Your task to perform on an android device: turn off smart reply in the gmail app Image 0: 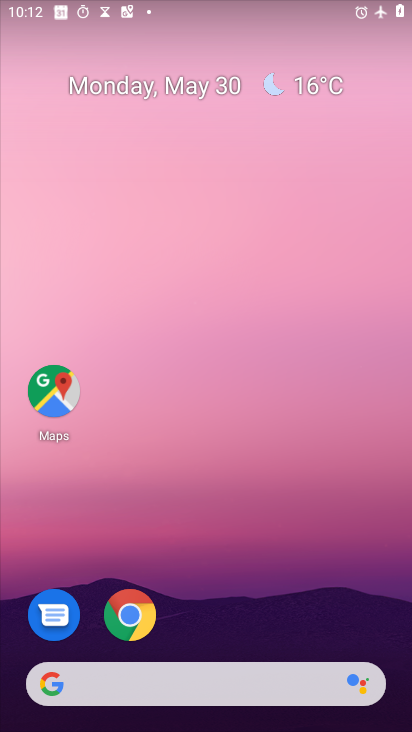
Step 0: drag from (307, 606) to (265, 33)
Your task to perform on an android device: turn off smart reply in the gmail app Image 1: 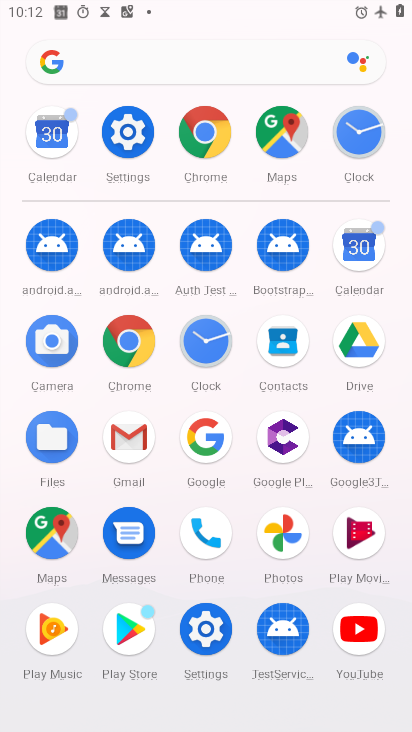
Step 1: click (127, 433)
Your task to perform on an android device: turn off smart reply in the gmail app Image 2: 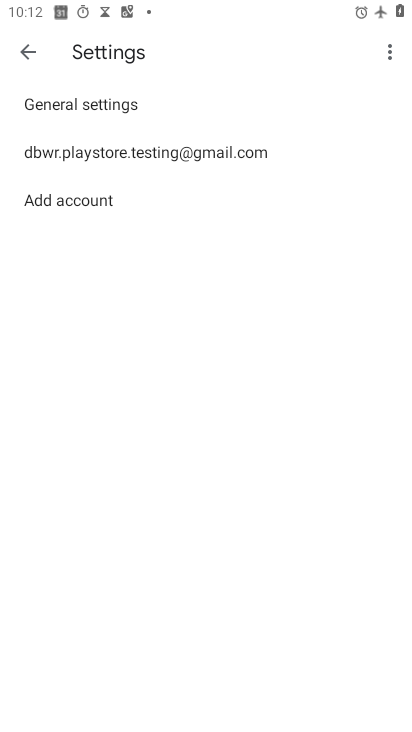
Step 2: click (31, 60)
Your task to perform on an android device: turn off smart reply in the gmail app Image 3: 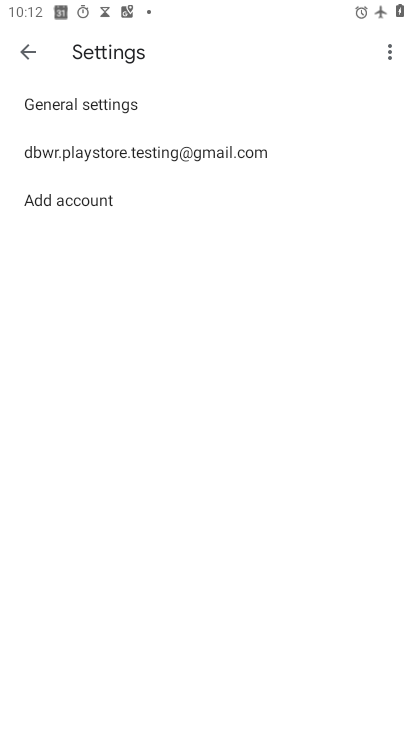
Step 3: click (31, 60)
Your task to perform on an android device: turn off smart reply in the gmail app Image 4: 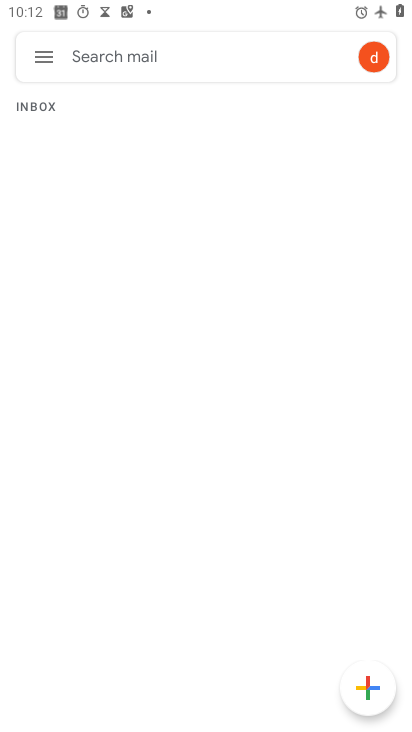
Step 4: click (41, 64)
Your task to perform on an android device: turn off smart reply in the gmail app Image 5: 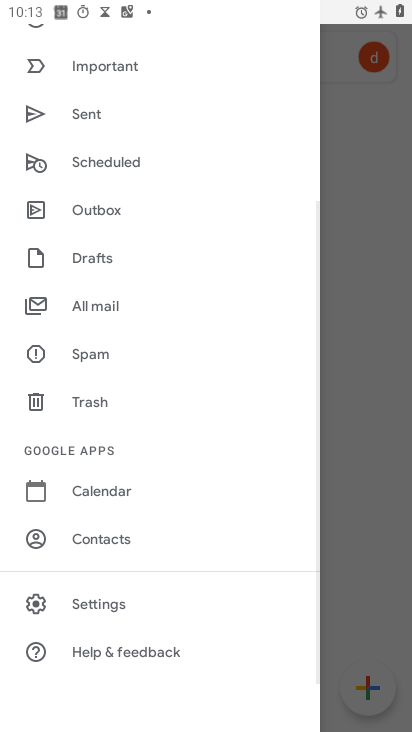
Step 5: click (97, 607)
Your task to perform on an android device: turn off smart reply in the gmail app Image 6: 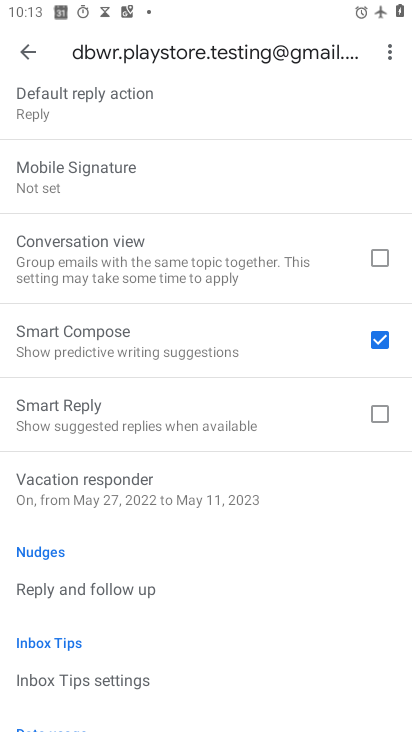
Step 6: task complete